Your task to perform on an android device: turn notification dots off Image 0: 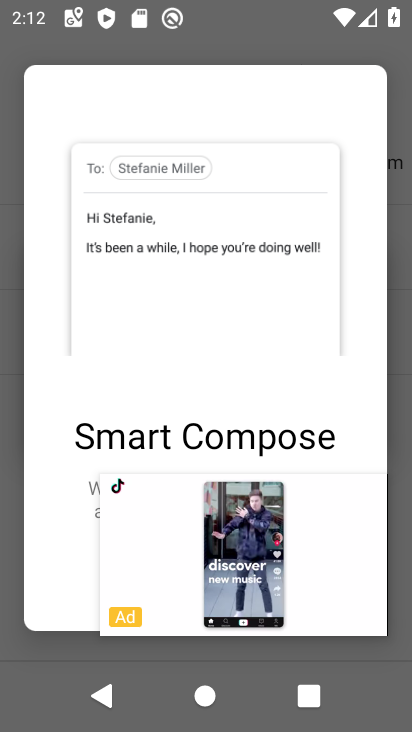
Step 0: press home button
Your task to perform on an android device: turn notification dots off Image 1: 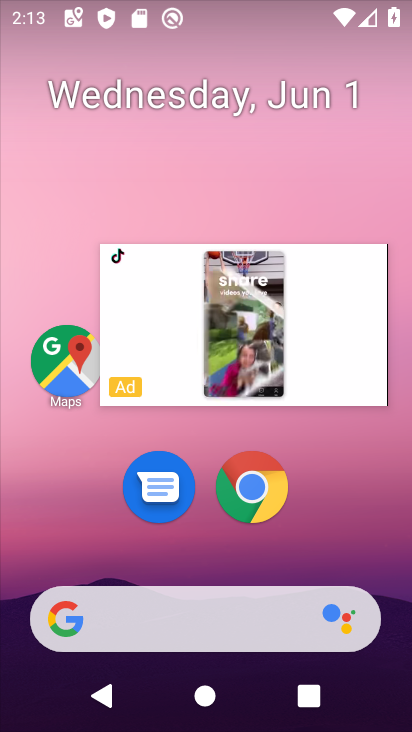
Step 1: drag from (382, 522) to (374, 99)
Your task to perform on an android device: turn notification dots off Image 2: 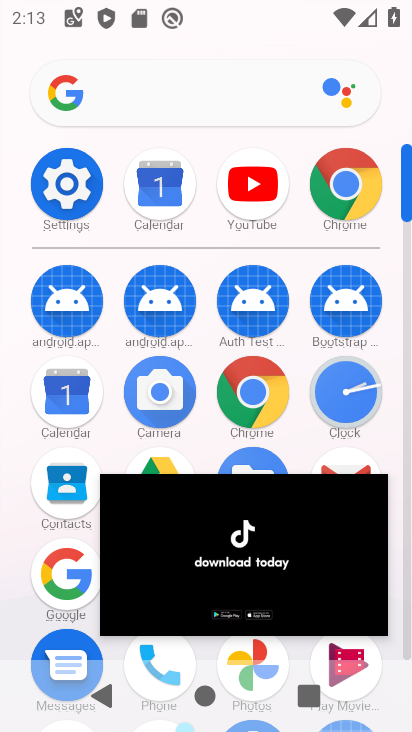
Step 2: click (63, 199)
Your task to perform on an android device: turn notification dots off Image 3: 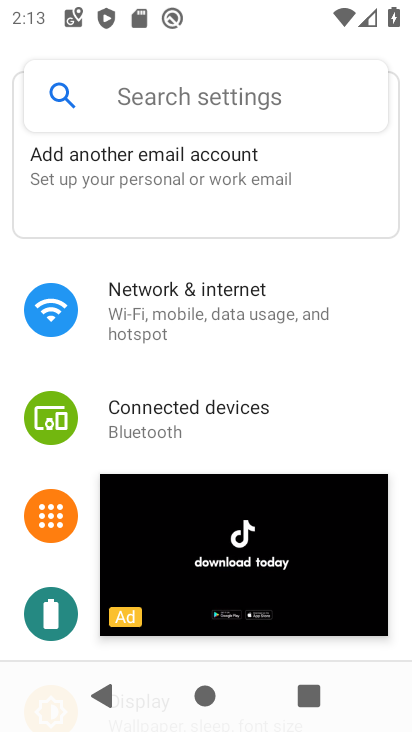
Step 3: drag from (309, 414) to (310, 285)
Your task to perform on an android device: turn notification dots off Image 4: 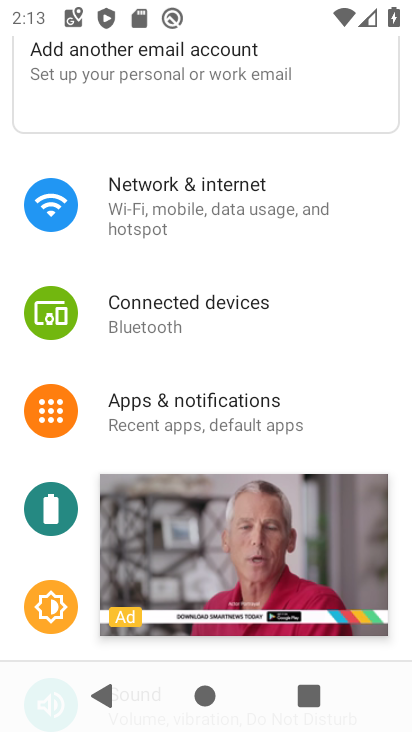
Step 4: click (265, 415)
Your task to perform on an android device: turn notification dots off Image 5: 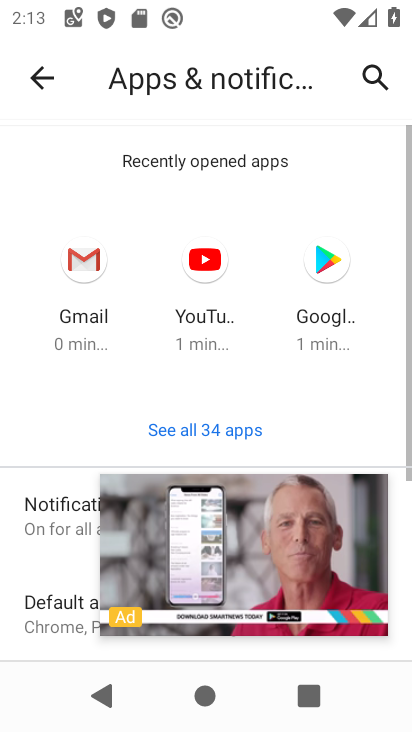
Step 5: drag from (301, 384) to (304, 229)
Your task to perform on an android device: turn notification dots off Image 6: 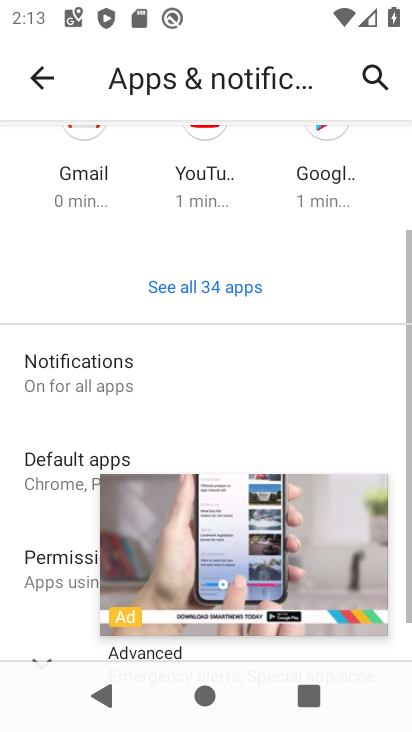
Step 6: drag from (300, 378) to (306, 225)
Your task to perform on an android device: turn notification dots off Image 7: 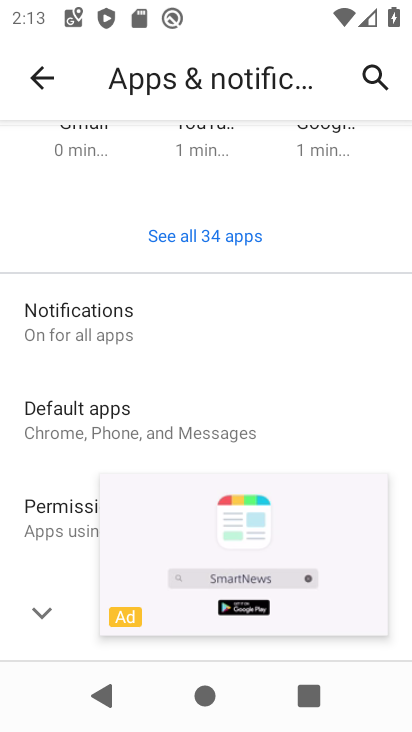
Step 7: click (124, 320)
Your task to perform on an android device: turn notification dots off Image 8: 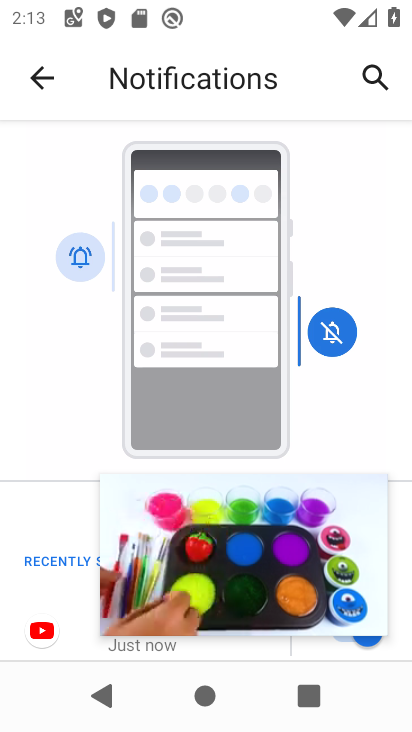
Step 8: drag from (363, 328) to (359, 146)
Your task to perform on an android device: turn notification dots off Image 9: 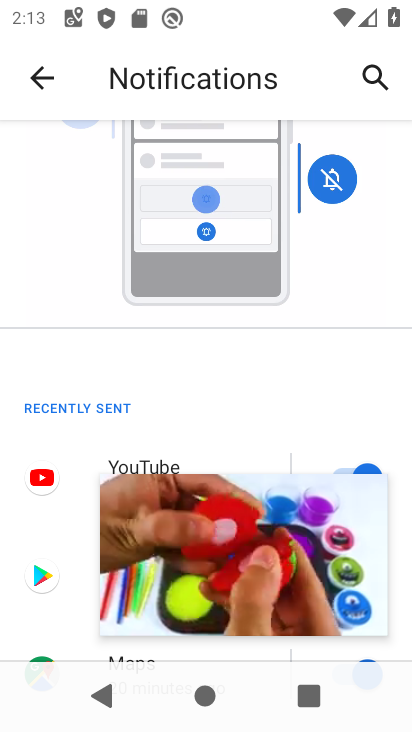
Step 9: drag from (317, 317) to (312, 141)
Your task to perform on an android device: turn notification dots off Image 10: 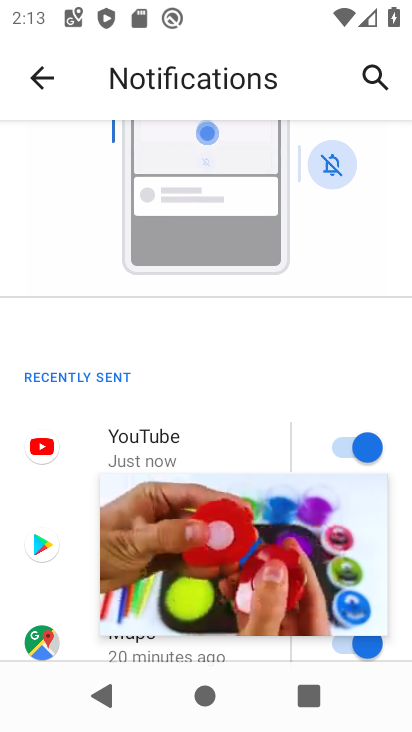
Step 10: drag from (229, 330) to (244, 143)
Your task to perform on an android device: turn notification dots off Image 11: 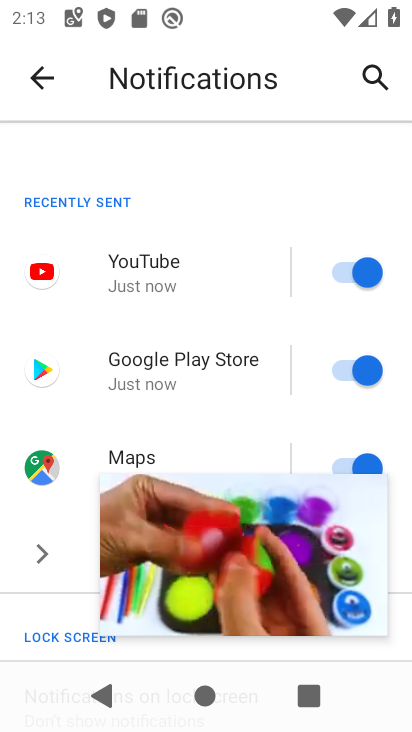
Step 11: drag from (271, 525) to (210, 715)
Your task to perform on an android device: turn notification dots off Image 12: 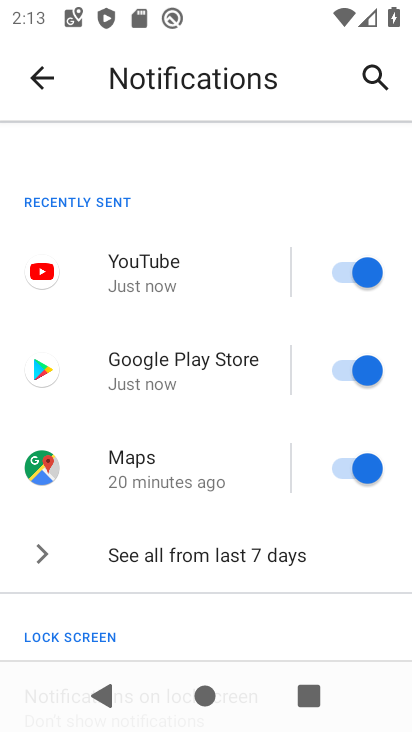
Step 12: drag from (256, 493) to (254, 204)
Your task to perform on an android device: turn notification dots off Image 13: 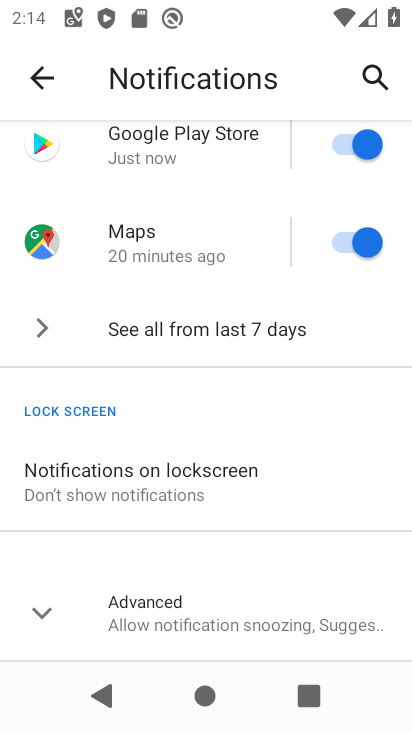
Step 13: click (206, 625)
Your task to perform on an android device: turn notification dots off Image 14: 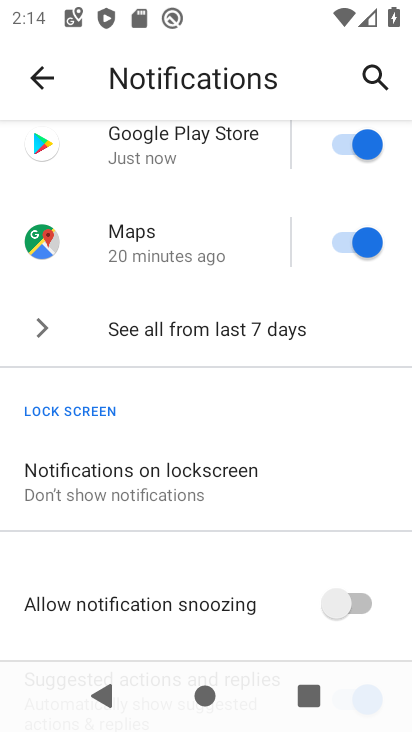
Step 14: drag from (294, 476) to (284, 262)
Your task to perform on an android device: turn notification dots off Image 15: 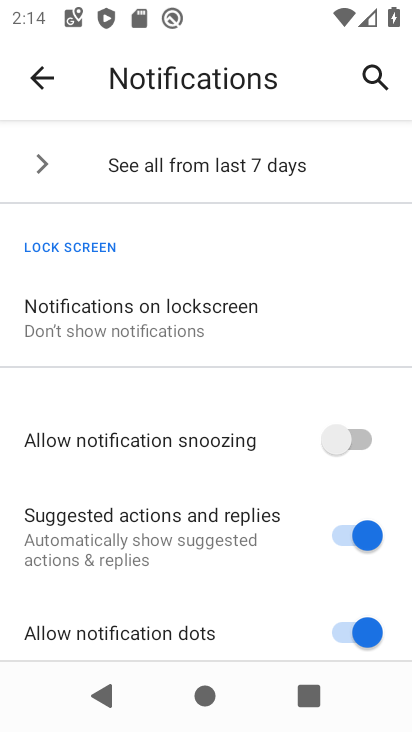
Step 15: drag from (273, 454) to (273, 287)
Your task to perform on an android device: turn notification dots off Image 16: 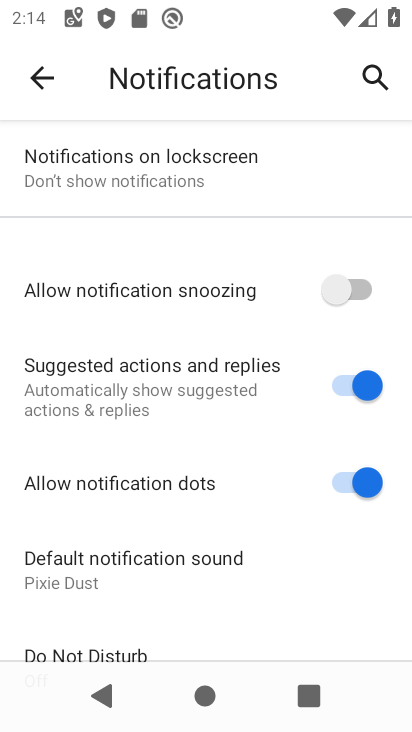
Step 16: click (354, 485)
Your task to perform on an android device: turn notification dots off Image 17: 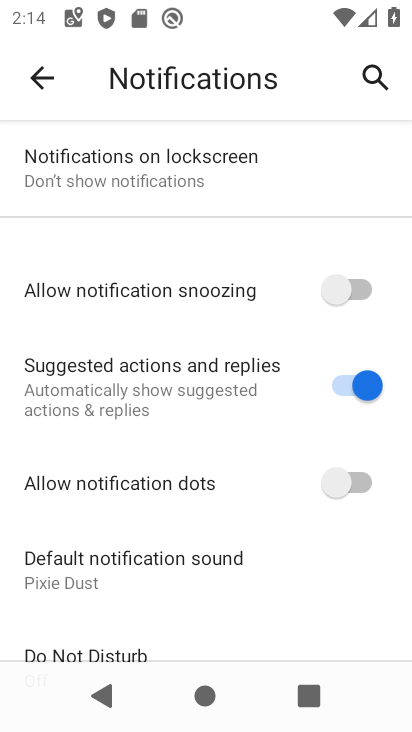
Step 17: task complete